Your task to perform on an android device: Search for the new Apple Watch on Best Buy Image 0: 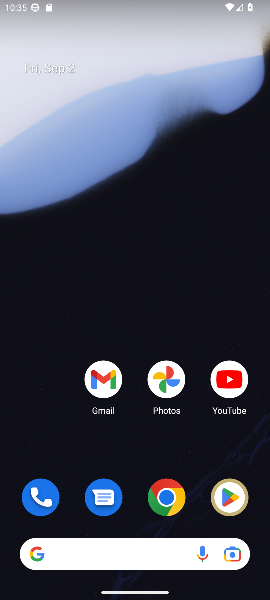
Step 0: press home button
Your task to perform on an android device: Search for the new Apple Watch on Best Buy Image 1: 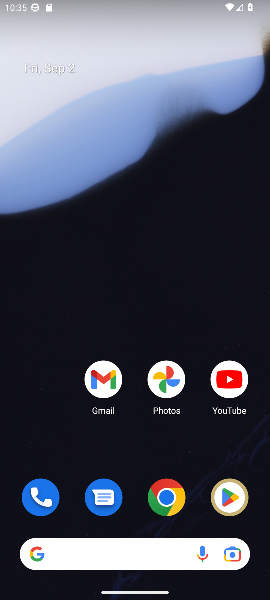
Step 1: drag from (133, 517) to (119, 112)
Your task to perform on an android device: Search for the new Apple Watch on Best Buy Image 2: 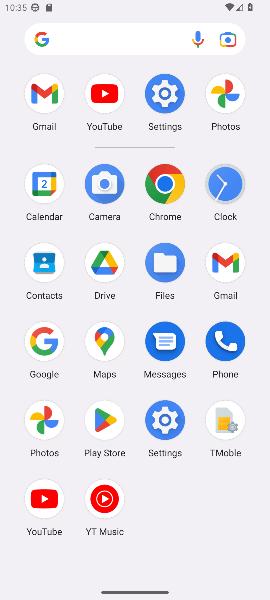
Step 2: click (43, 343)
Your task to perform on an android device: Search for the new Apple Watch on Best Buy Image 3: 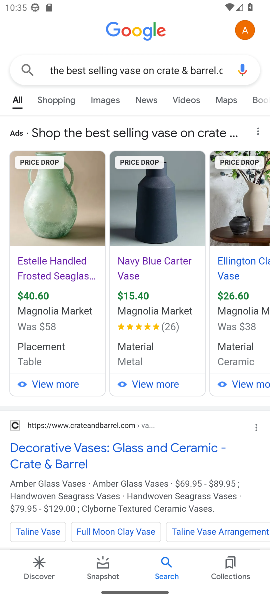
Step 3: click (195, 70)
Your task to perform on an android device: Search for the new Apple Watch on Best Buy Image 4: 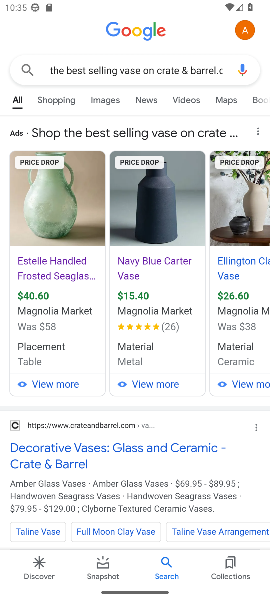
Step 4: click (195, 70)
Your task to perform on an android device: Search for the new Apple Watch on Best Buy Image 5: 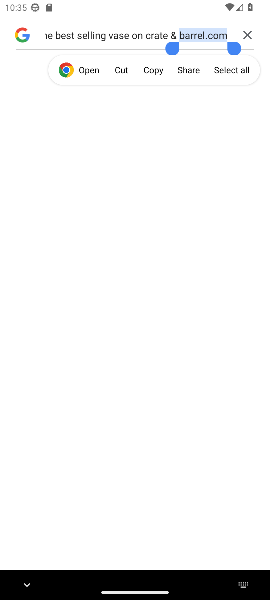
Step 5: click (247, 31)
Your task to perform on an android device: Search for the new Apple Watch on Best Buy Image 6: 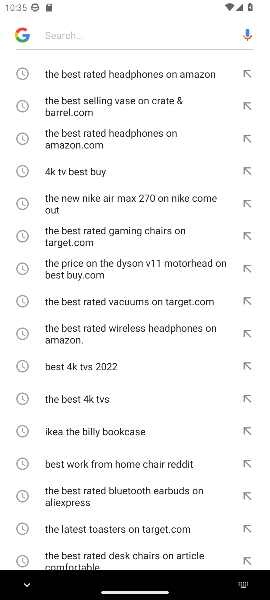
Step 6: click (104, 36)
Your task to perform on an android device: Search for the new Apple Watch on Best Buy Image 7: 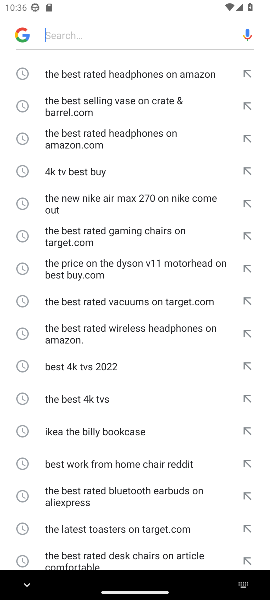
Step 7: type "the new Apple Watch on Best Buy"
Your task to perform on an android device: Search for the new Apple Watch on Best Buy Image 8: 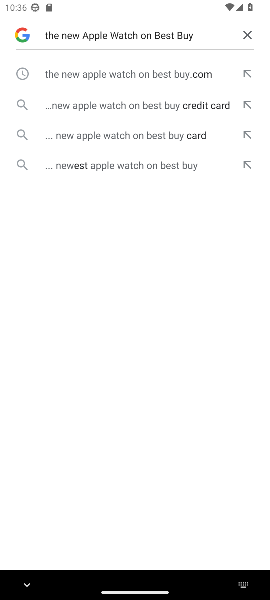
Step 8: click (146, 69)
Your task to perform on an android device: Search for the new Apple Watch on Best Buy Image 9: 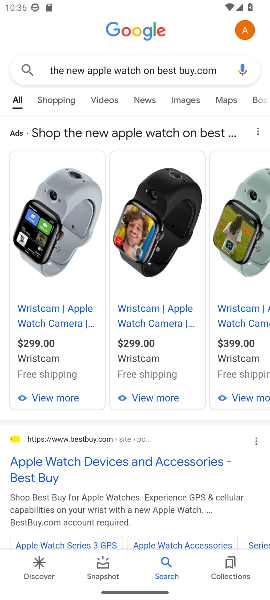
Step 9: task complete